Your task to perform on an android device: turn off airplane mode Image 0: 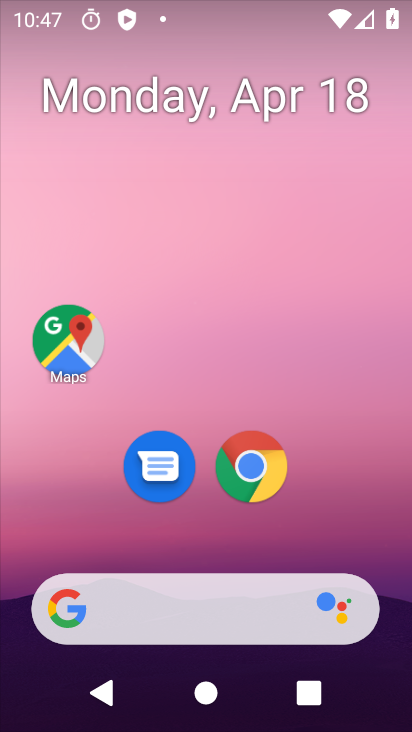
Step 0: drag from (251, 556) to (193, 255)
Your task to perform on an android device: turn off airplane mode Image 1: 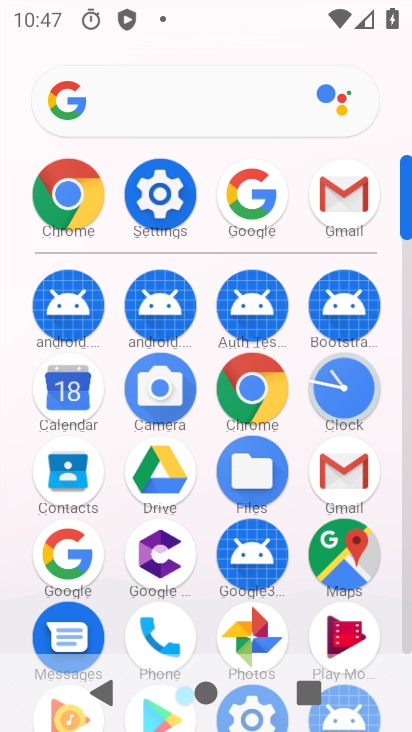
Step 1: click (152, 207)
Your task to perform on an android device: turn off airplane mode Image 2: 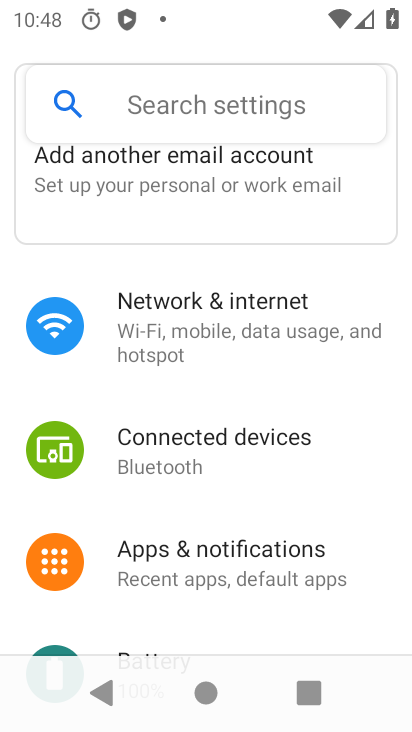
Step 2: click (222, 339)
Your task to perform on an android device: turn off airplane mode Image 3: 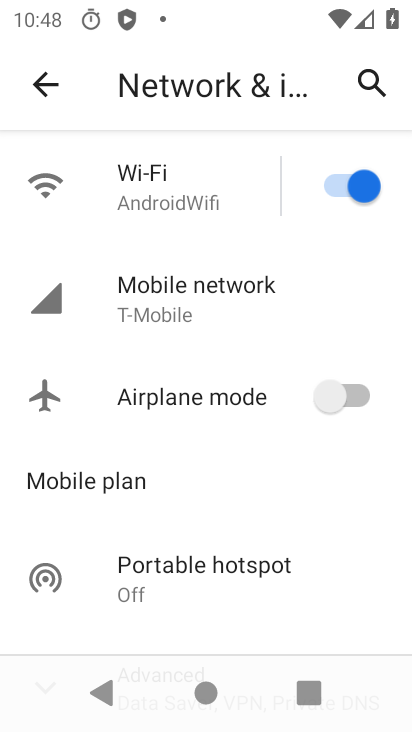
Step 3: task complete